Your task to perform on an android device: turn on javascript in the chrome app Image 0: 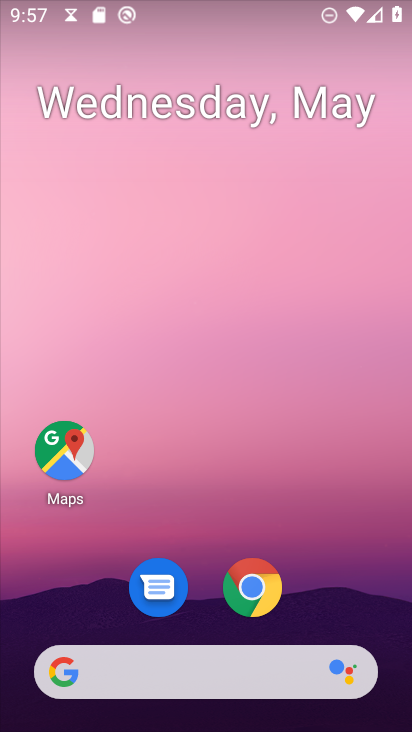
Step 0: click (248, 583)
Your task to perform on an android device: turn on javascript in the chrome app Image 1: 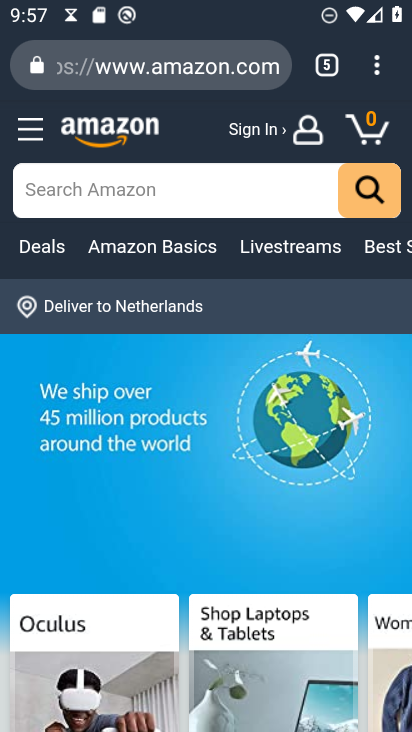
Step 1: click (376, 73)
Your task to perform on an android device: turn on javascript in the chrome app Image 2: 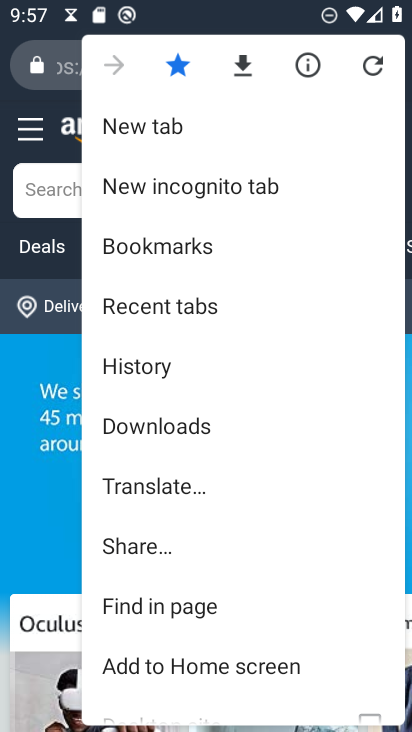
Step 2: drag from (226, 609) to (210, 207)
Your task to perform on an android device: turn on javascript in the chrome app Image 3: 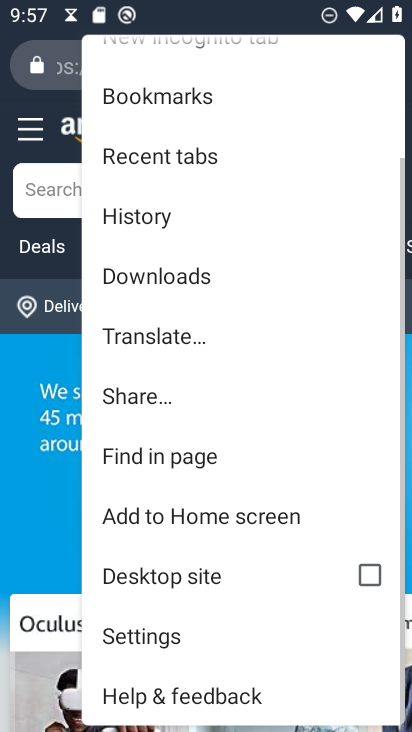
Step 3: click (149, 632)
Your task to perform on an android device: turn on javascript in the chrome app Image 4: 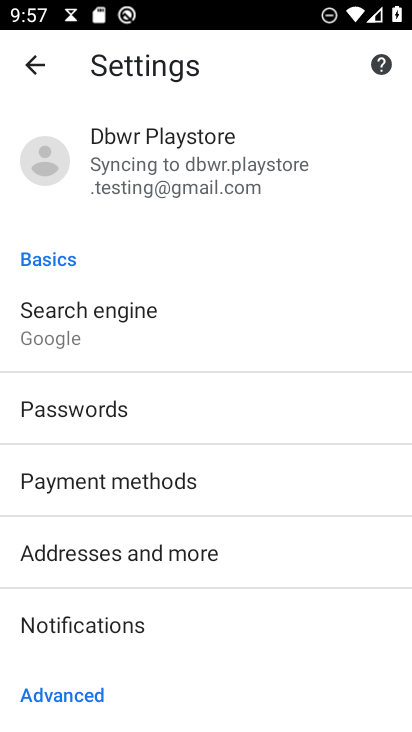
Step 4: drag from (144, 678) to (166, 210)
Your task to perform on an android device: turn on javascript in the chrome app Image 5: 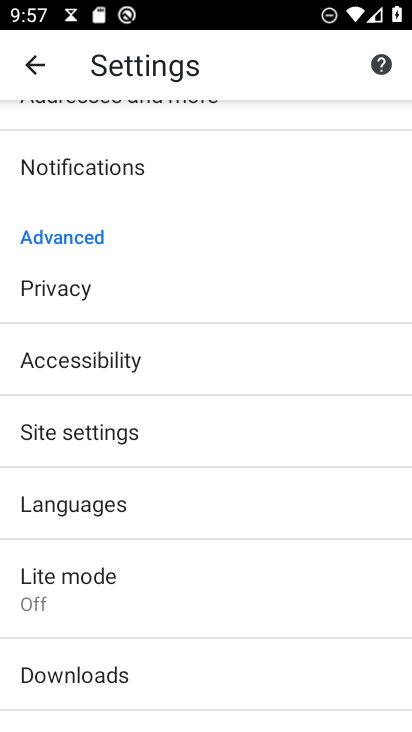
Step 5: click (83, 427)
Your task to perform on an android device: turn on javascript in the chrome app Image 6: 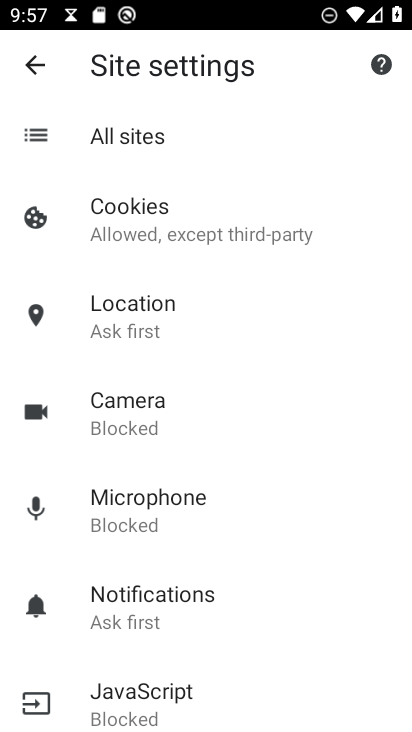
Step 6: click (143, 698)
Your task to perform on an android device: turn on javascript in the chrome app Image 7: 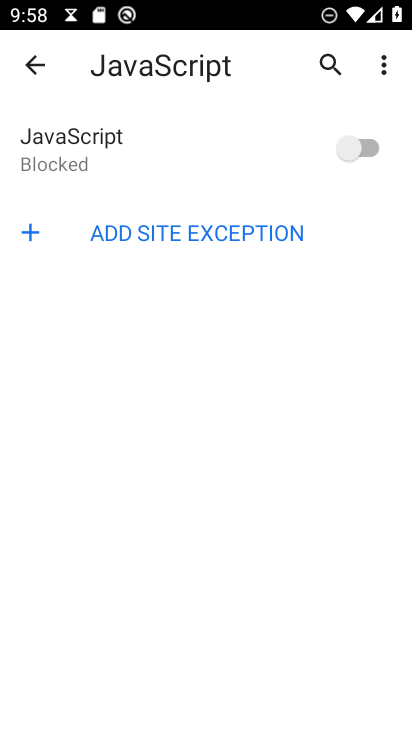
Step 7: click (367, 148)
Your task to perform on an android device: turn on javascript in the chrome app Image 8: 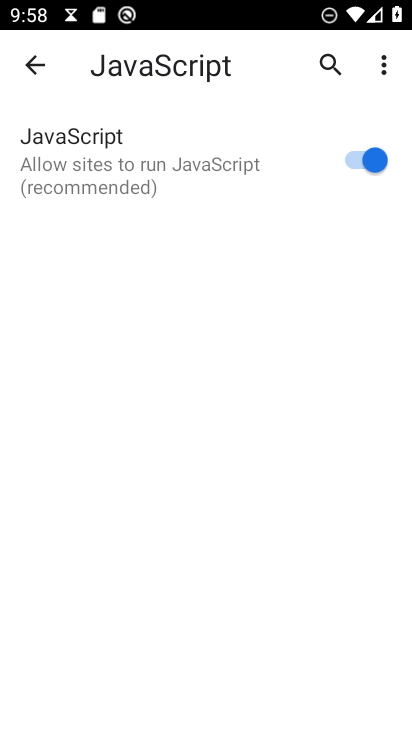
Step 8: task complete